Your task to perform on an android device: Go to Google maps Image 0: 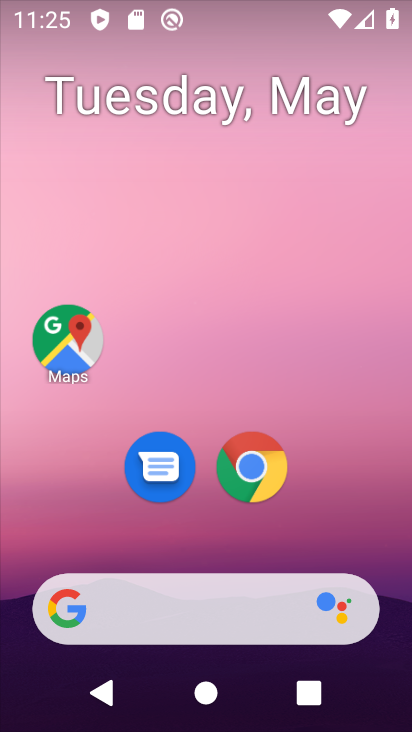
Step 0: click (65, 348)
Your task to perform on an android device: Go to Google maps Image 1: 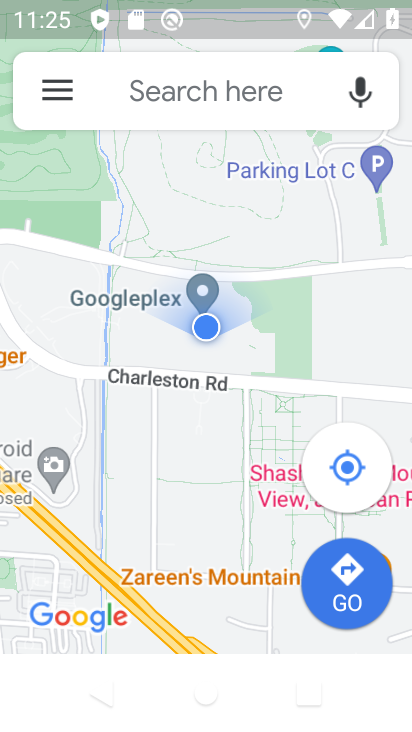
Step 1: task complete